Your task to perform on an android device: snooze an email in the gmail app Image 0: 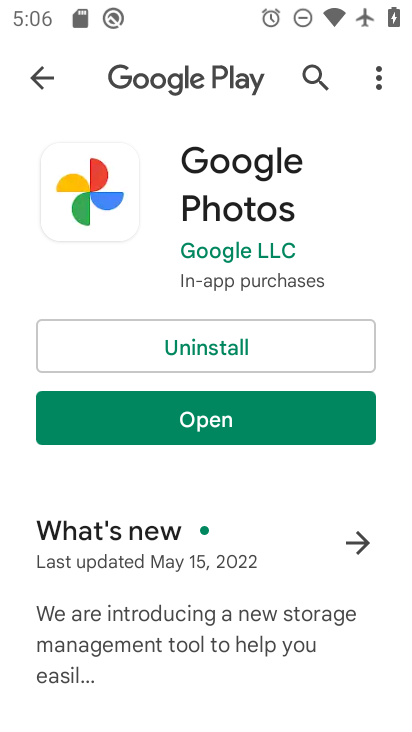
Step 0: press home button
Your task to perform on an android device: snooze an email in the gmail app Image 1: 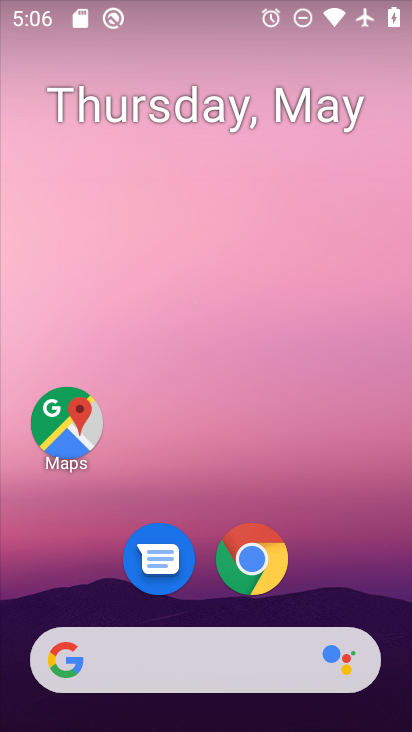
Step 1: drag from (340, 566) to (234, 4)
Your task to perform on an android device: snooze an email in the gmail app Image 2: 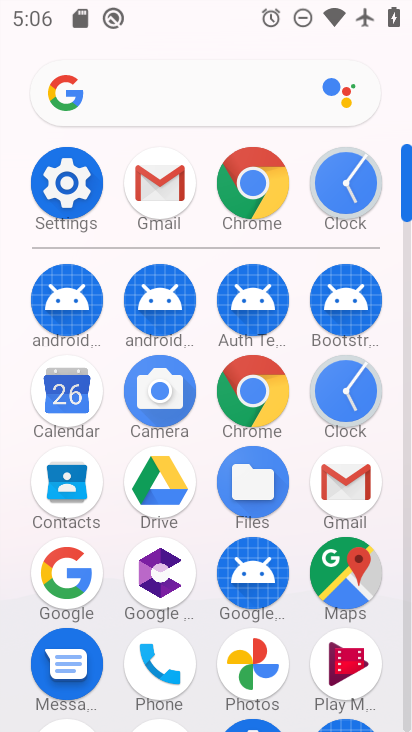
Step 2: click (354, 477)
Your task to perform on an android device: snooze an email in the gmail app Image 3: 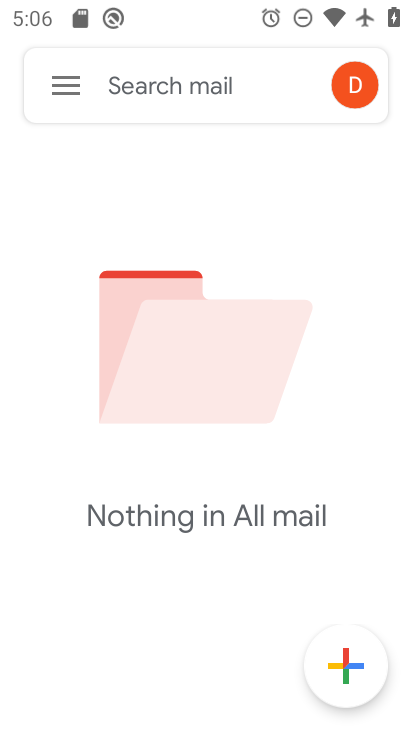
Step 3: click (73, 85)
Your task to perform on an android device: snooze an email in the gmail app Image 4: 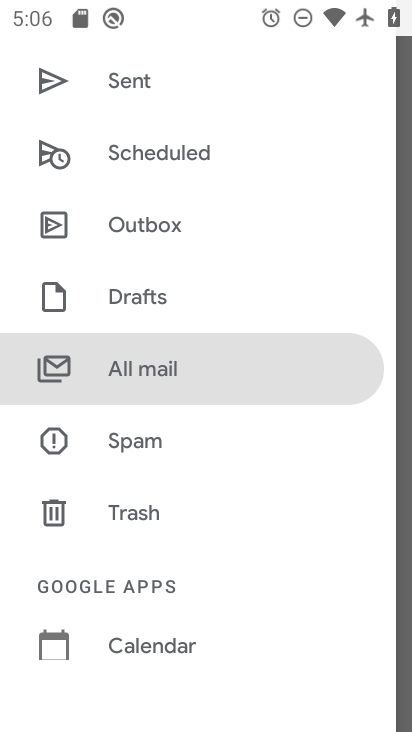
Step 4: task complete